Your task to perform on an android device: open app "Adobe Acrobat Reader" Image 0: 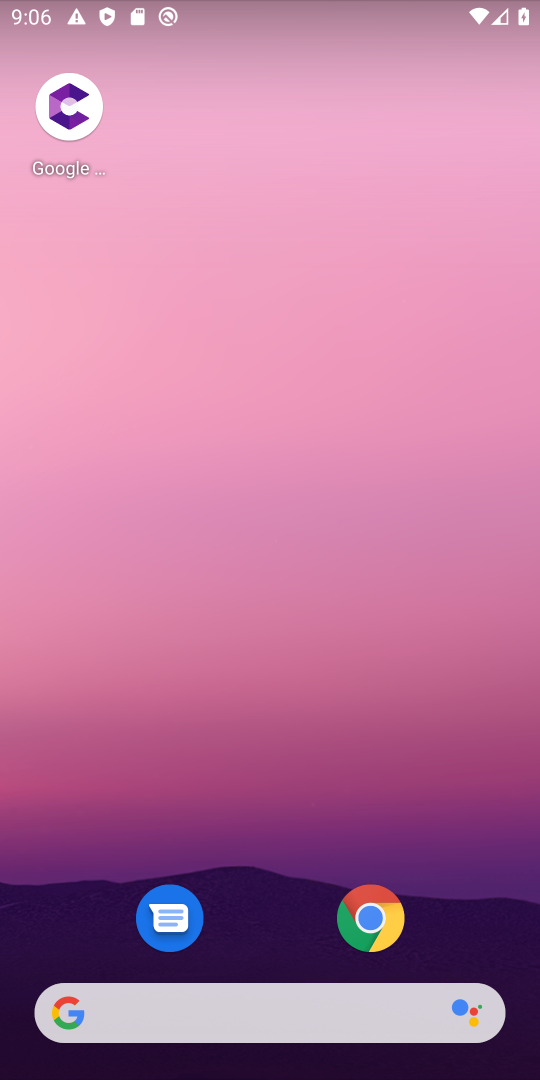
Step 0: drag from (244, 891) to (248, 143)
Your task to perform on an android device: open app "Adobe Acrobat Reader" Image 1: 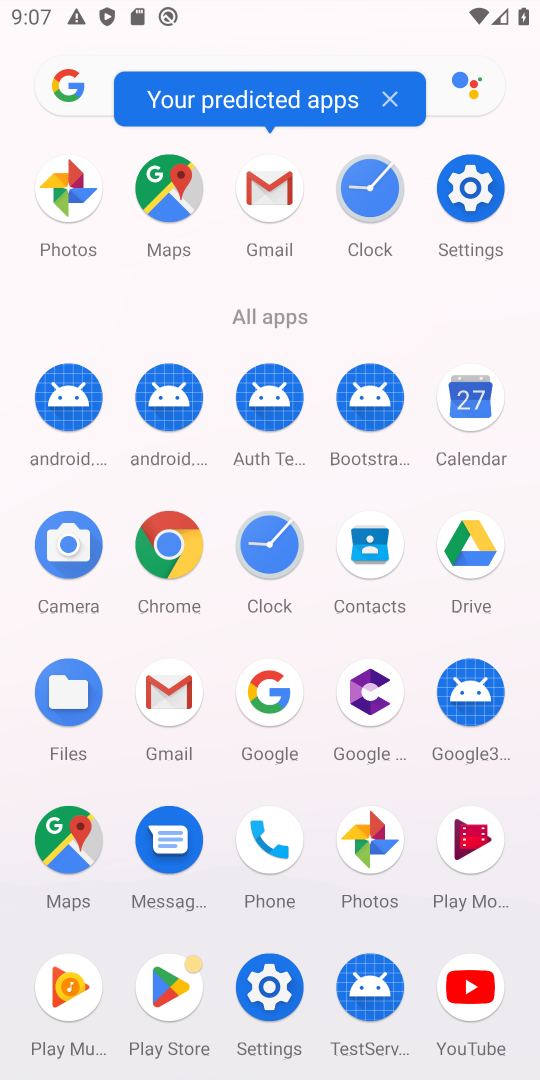
Step 1: drag from (261, 454) to (240, 187)
Your task to perform on an android device: open app "Adobe Acrobat Reader" Image 2: 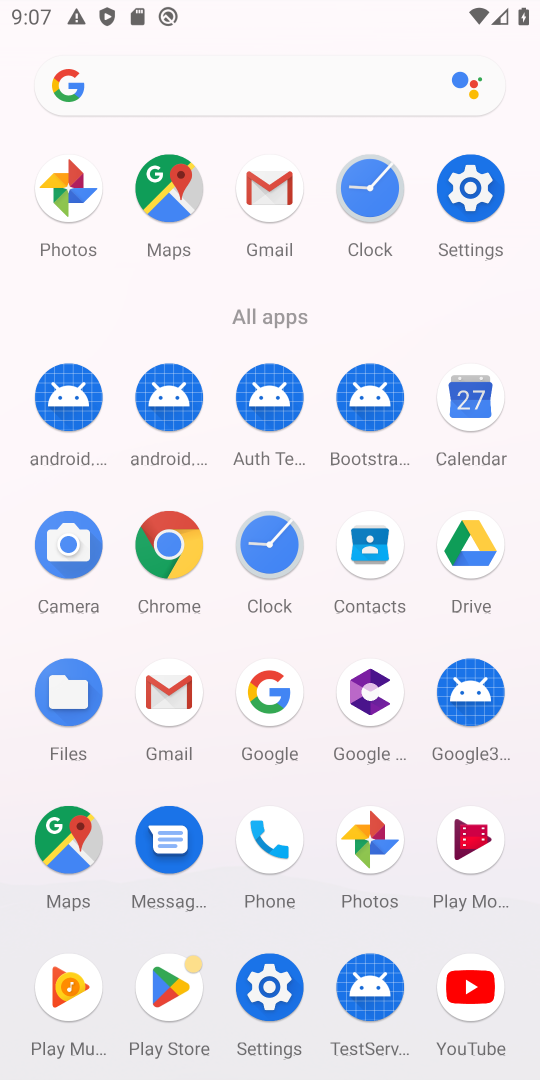
Step 2: click (175, 990)
Your task to perform on an android device: open app "Adobe Acrobat Reader" Image 3: 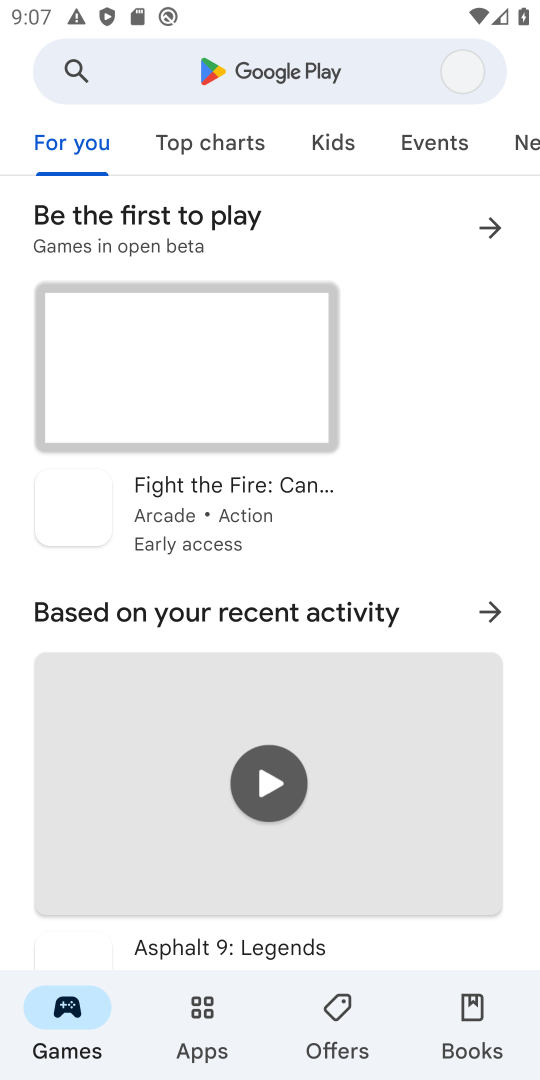
Step 3: click (205, 62)
Your task to perform on an android device: open app "Adobe Acrobat Reader" Image 4: 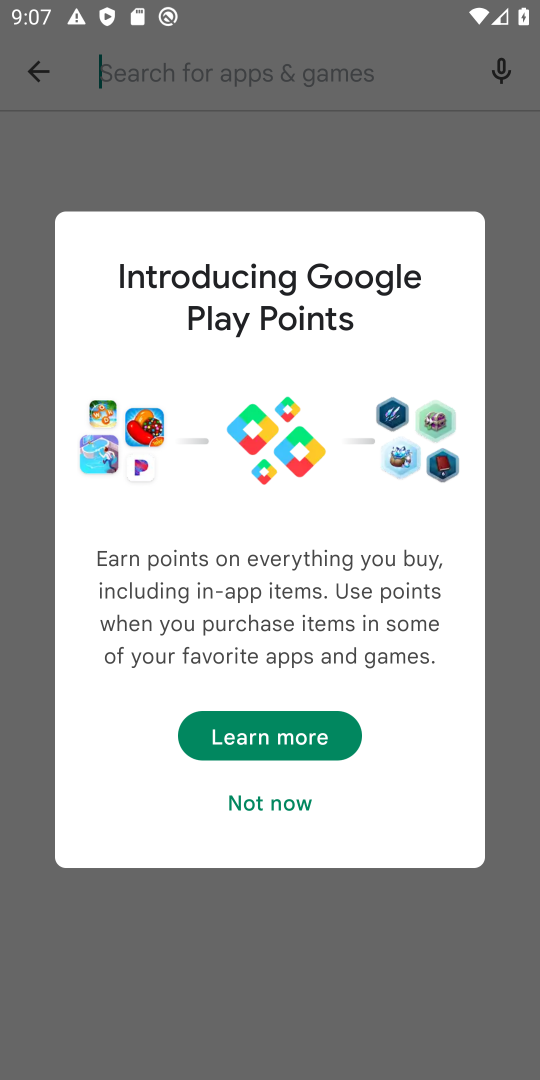
Step 4: click (284, 64)
Your task to perform on an android device: open app "Adobe Acrobat Reader" Image 5: 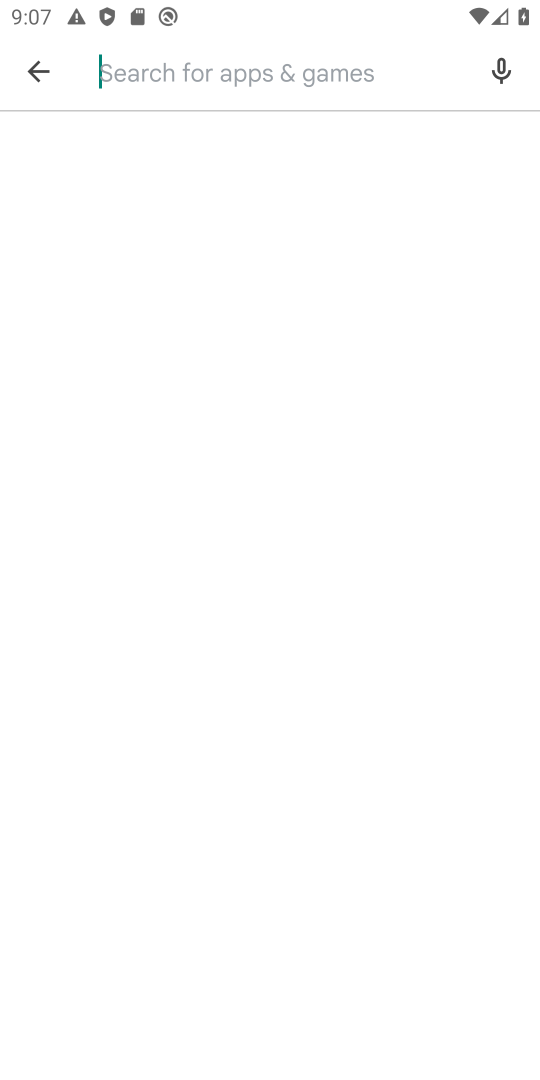
Step 5: type "adobe acrobat reader"
Your task to perform on an android device: open app "Adobe Acrobat Reader" Image 6: 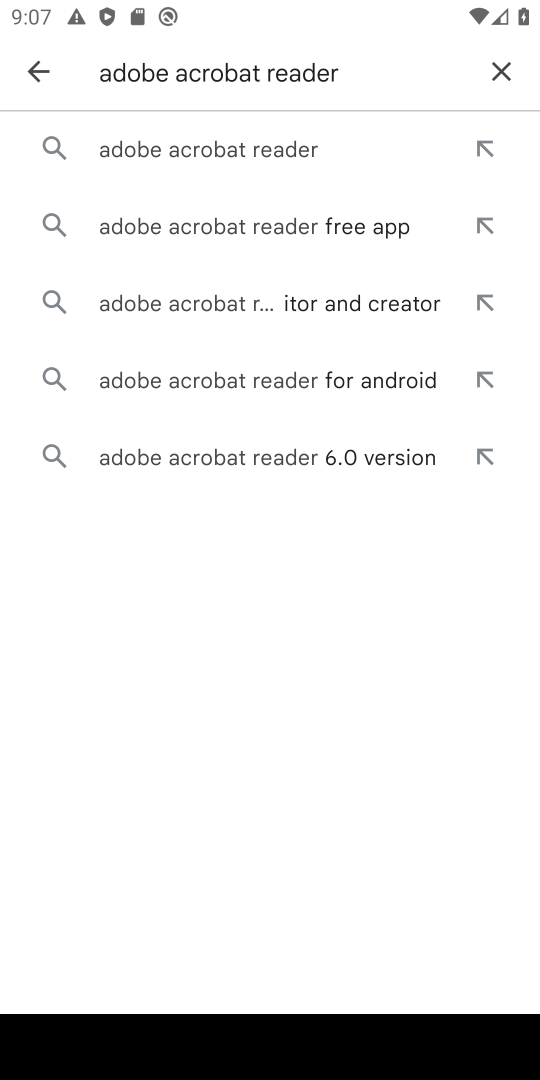
Step 6: click (223, 141)
Your task to perform on an android device: open app "Adobe Acrobat Reader" Image 7: 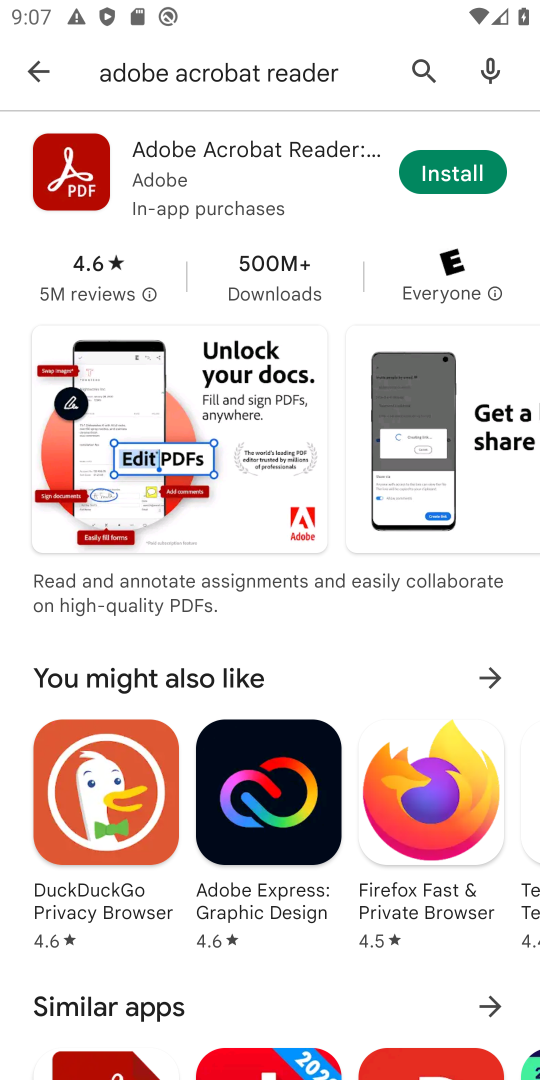
Step 7: task complete